Your task to perform on an android device: set the stopwatch Image 0: 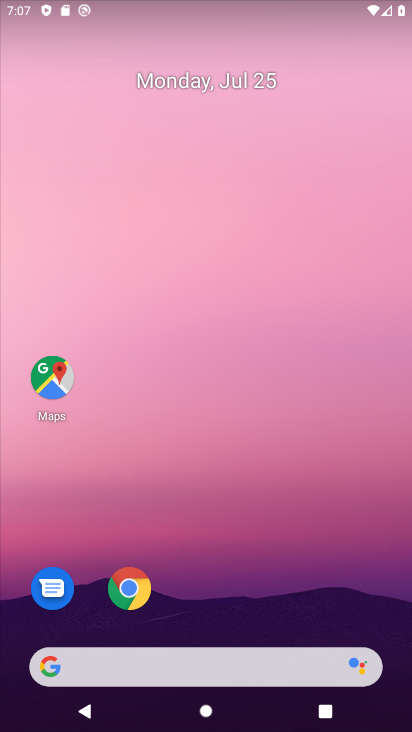
Step 0: drag from (262, 520) to (280, 242)
Your task to perform on an android device: set the stopwatch Image 1: 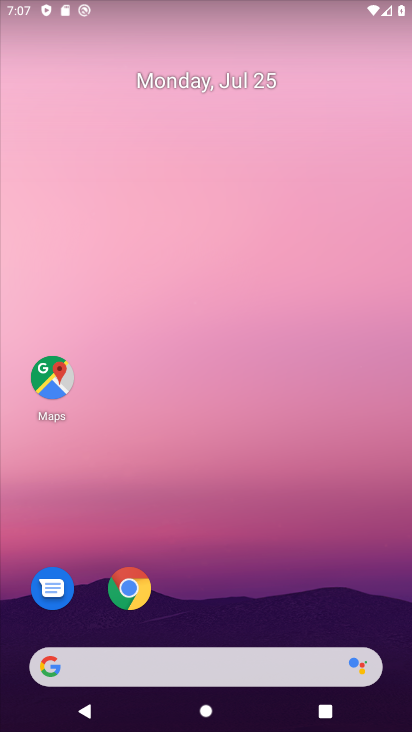
Step 1: drag from (273, 516) to (384, 158)
Your task to perform on an android device: set the stopwatch Image 2: 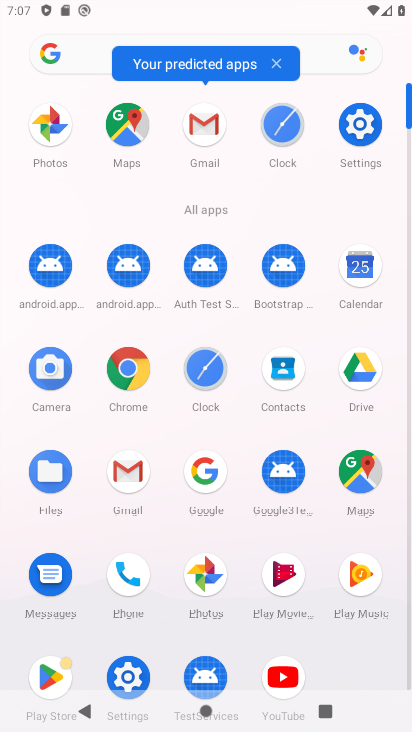
Step 2: click (279, 128)
Your task to perform on an android device: set the stopwatch Image 3: 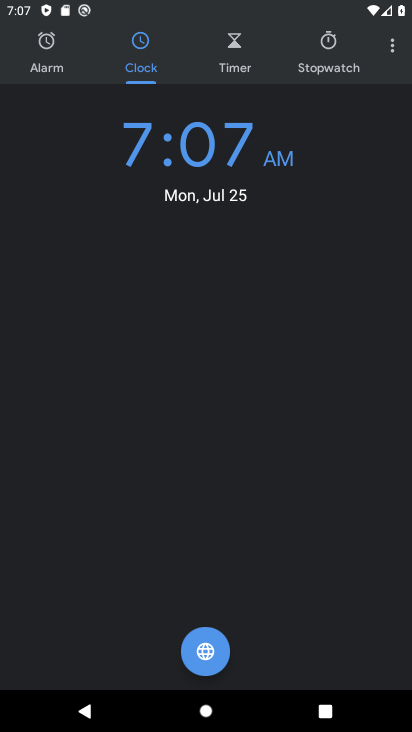
Step 3: click (326, 54)
Your task to perform on an android device: set the stopwatch Image 4: 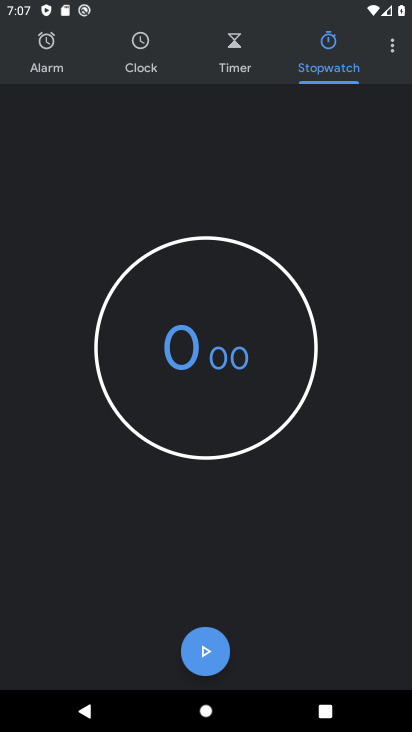
Step 4: task complete